Your task to perform on an android device: install app "Reddit" Image 0: 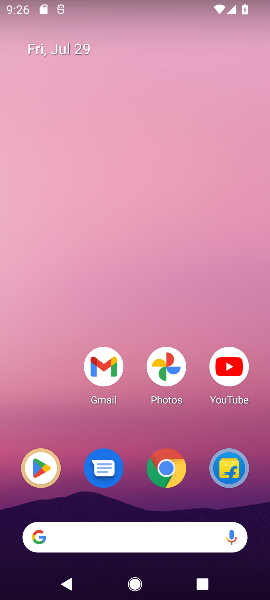
Step 0: click (32, 473)
Your task to perform on an android device: install app "Reddit" Image 1: 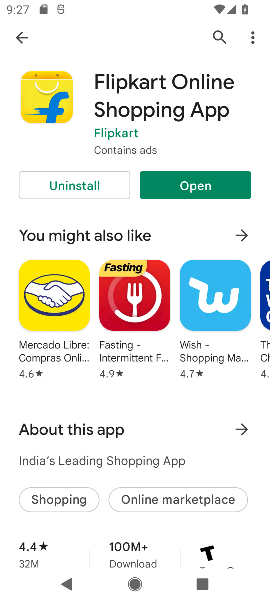
Step 1: click (220, 42)
Your task to perform on an android device: install app "Reddit" Image 2: 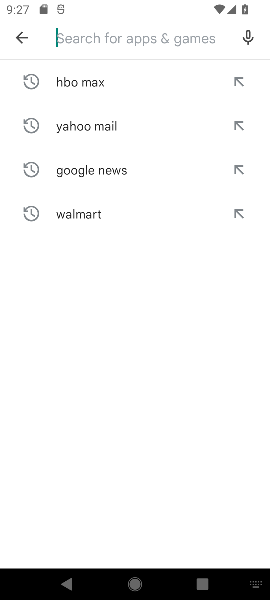
Step 2: click (81, 43)
Your task to perform on an android device: install app "Reddit" Image 3: 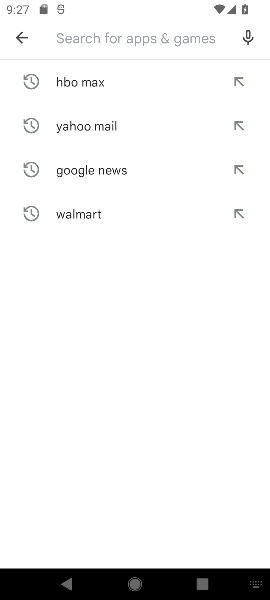
Step 3: type "reddit"
Your task to perform on an android device: install app "Reddit" Image 4: 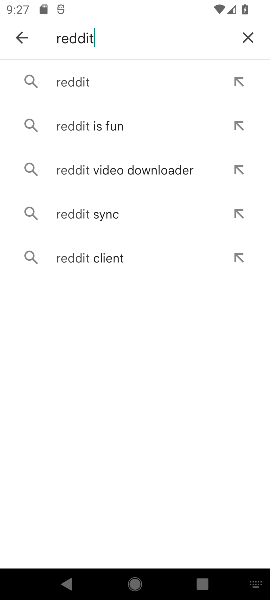
Step 4: click (93, 74)
Your task to perform on an android device: install app "Reddit" Image 5: 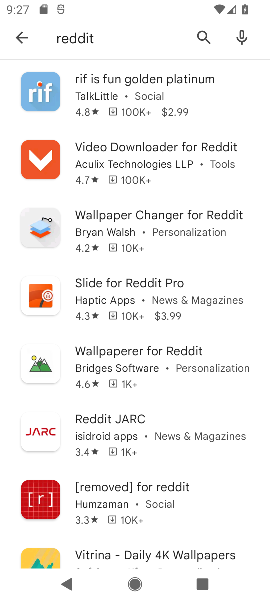
Step 5: task complete